Your task to perform on an android device: Open ESPN.com Image 0: 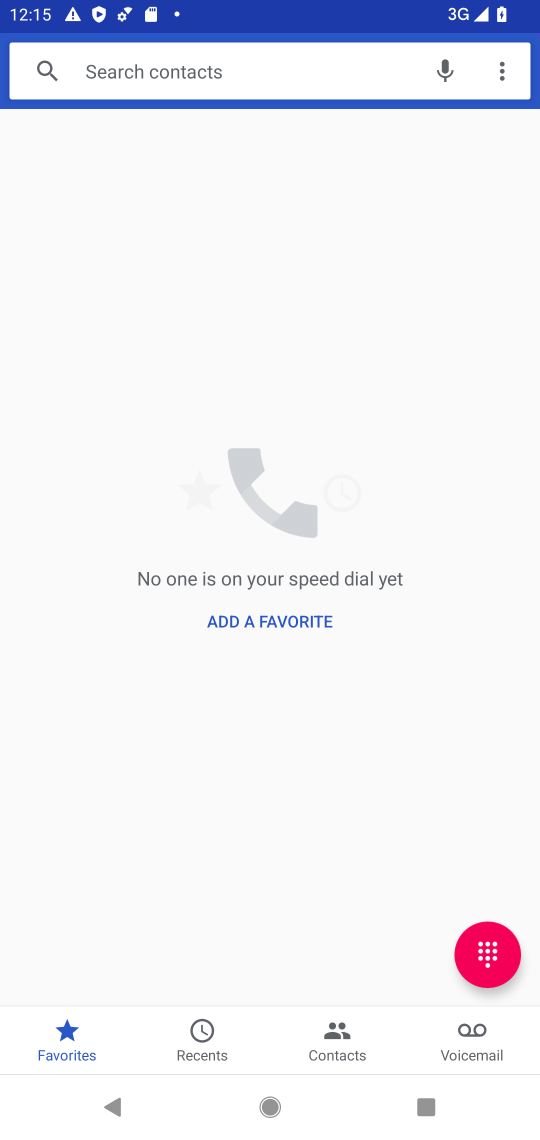
Step 0: drag from (345, 987) to (306, 66)
Your task to perform on an android device: Open ESPN.com Image 1: 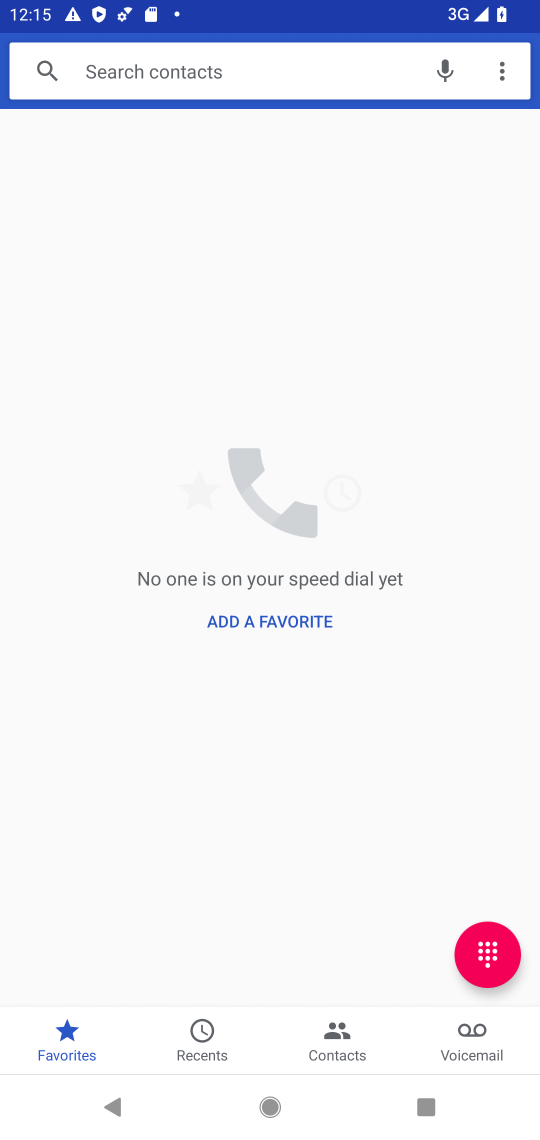
Step 1: press home button
Your task to perform on an android device: Open ESPN.com Image 2: 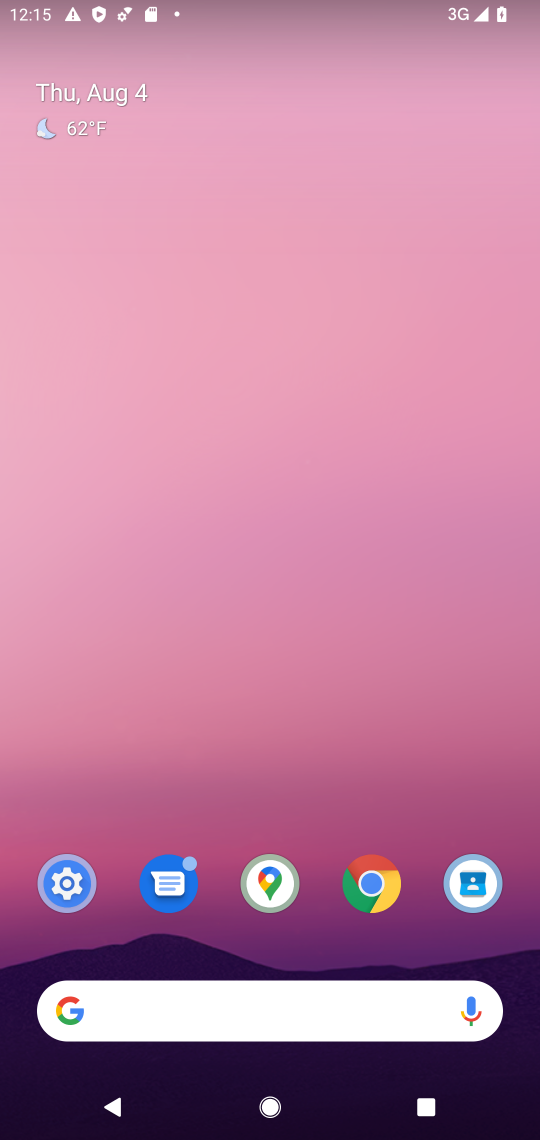
Step 2: drag from (324, 943) to (310, 476)
Your task to perform on an android device: Open ESPN.com Image 3: 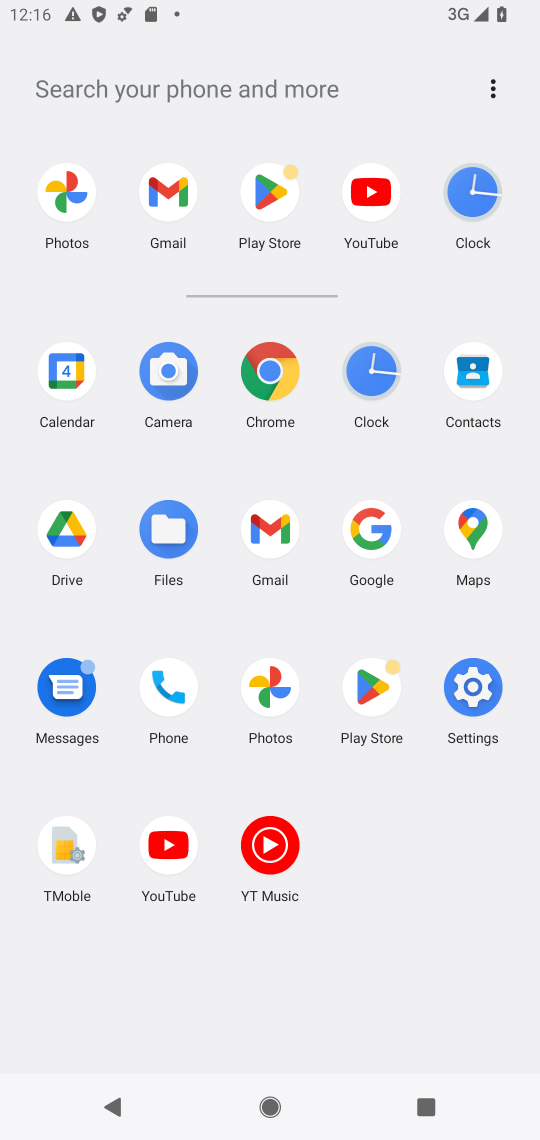
Step 3: click (281, 363)
Your task to perform on an android device: Open ESPN.com Image 4: 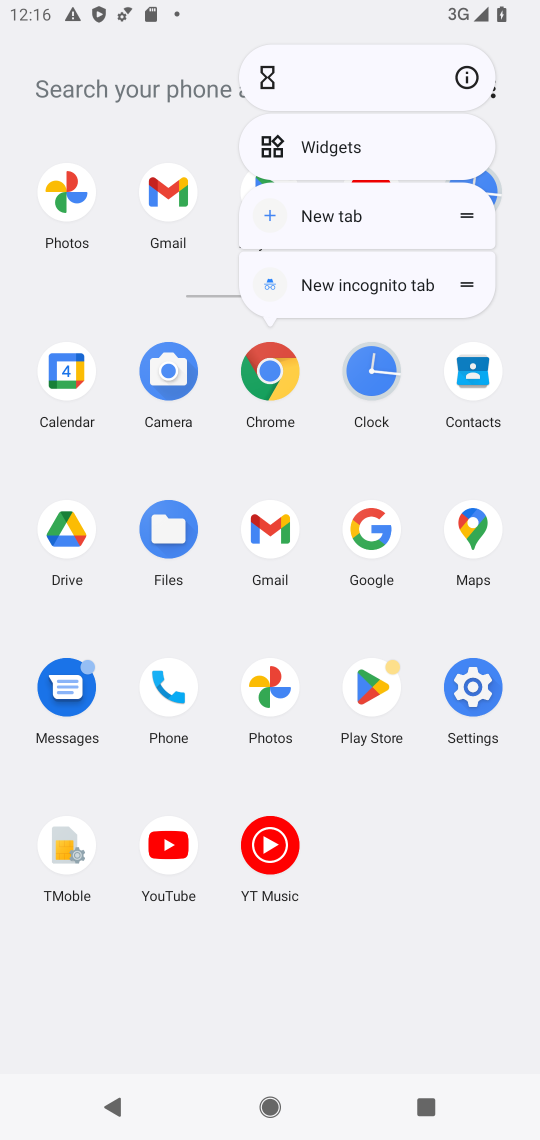
Step 4: click (463, 69)
Your task to perform on an android device: Open ESPN.com Image 5: 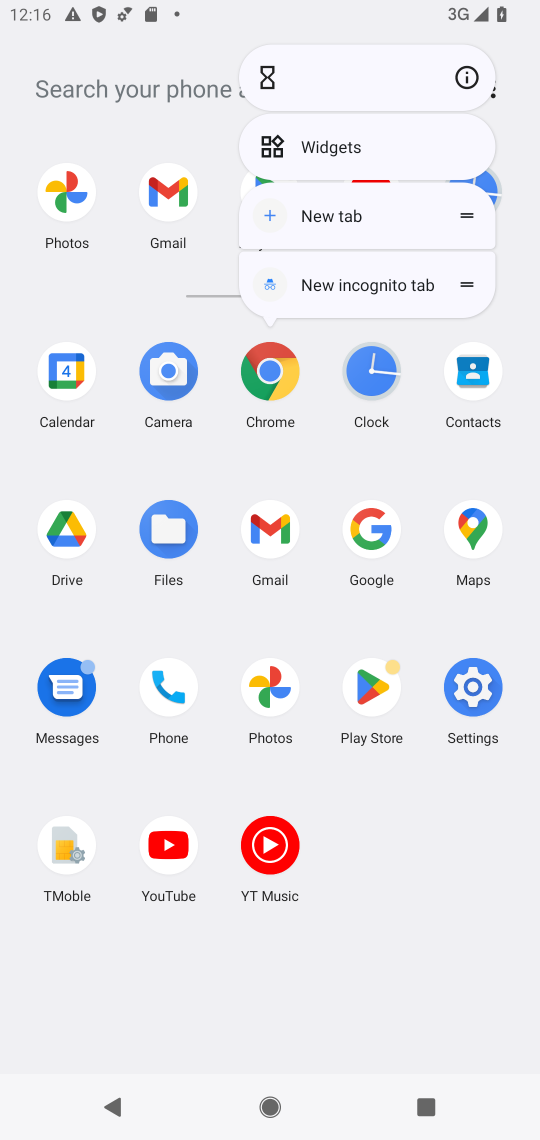
Step 5: click (452, 74)
Your task to perform on an android device: Open ESPN.com Image 6: 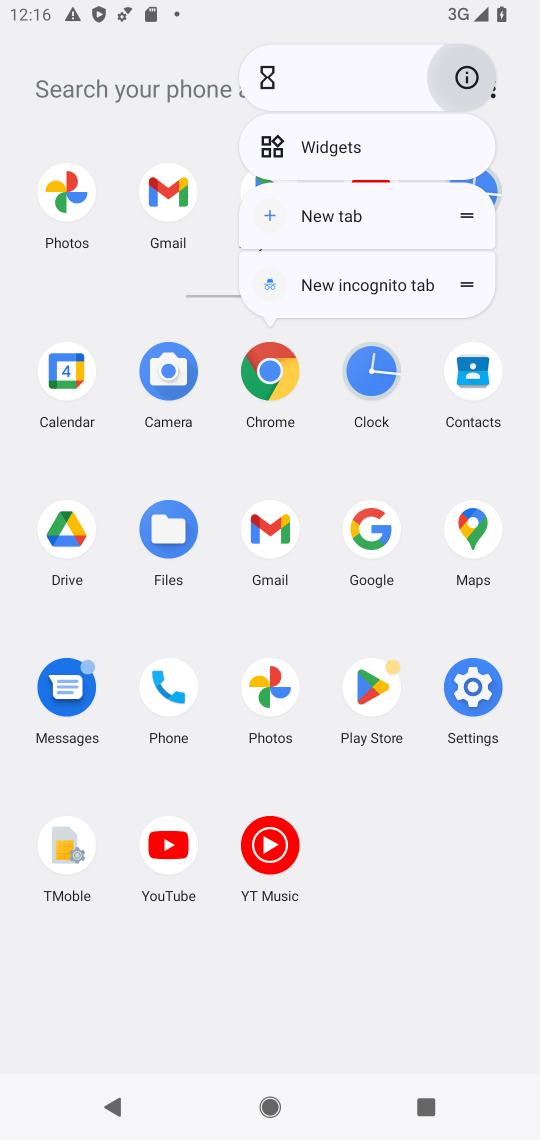
Step 6: click (456, 74)
Your task to perform on an android device: Open ESPN.com Image 7: 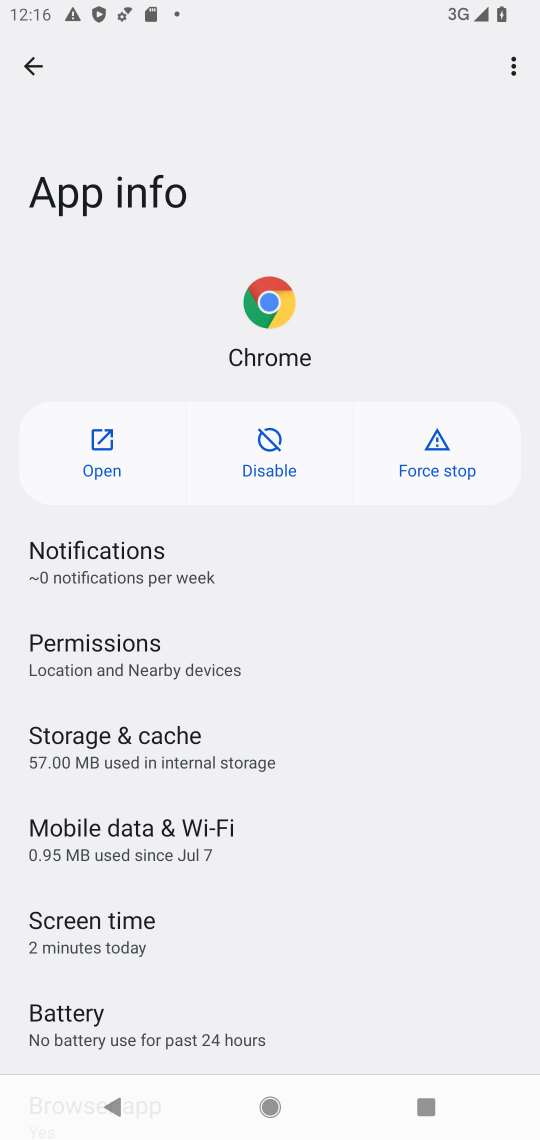
Step 7: click (102, 455)
Your task to perform on an android device: Open ESPN.com Image 8: 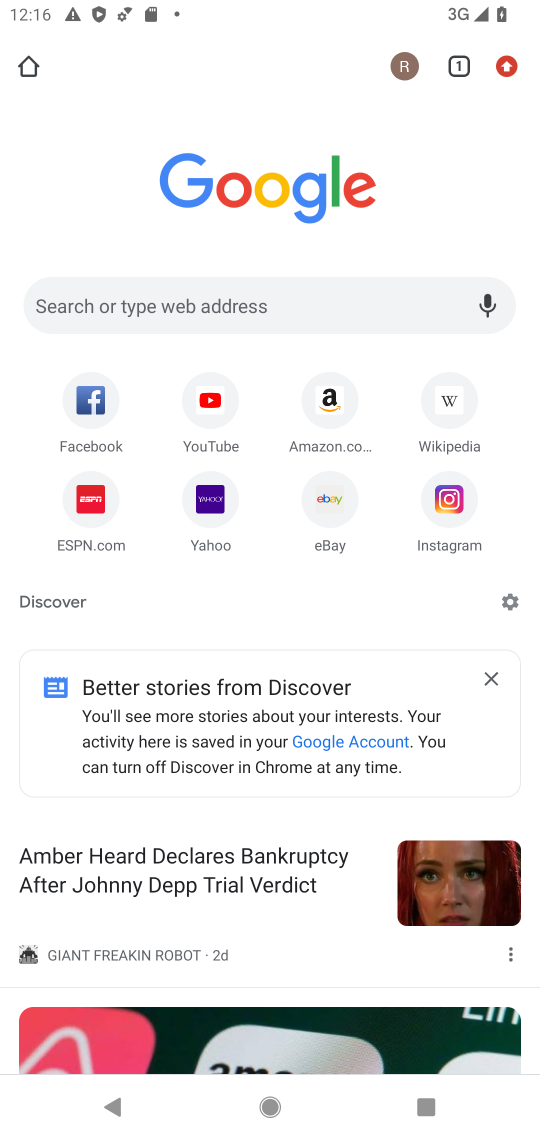
Step 8: drag from (306, 793) to (496, 264)
Your task to perform on an android device: Open ESPN.com Image 9: 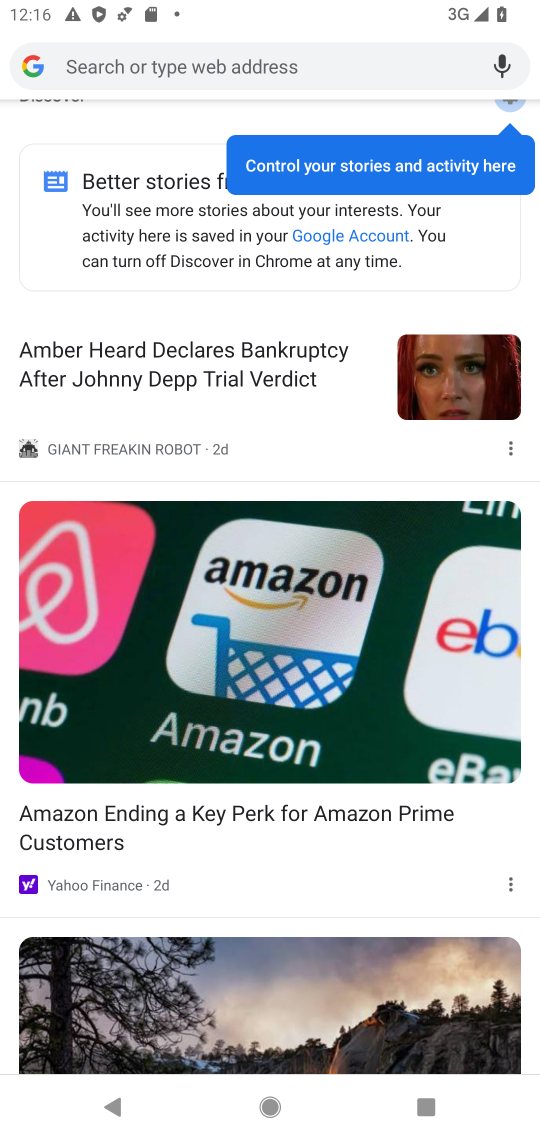
Step 9: drag from (204, 285) to (329, 657)
Your task to perform on an android device: Open ESPN.com Image 10: 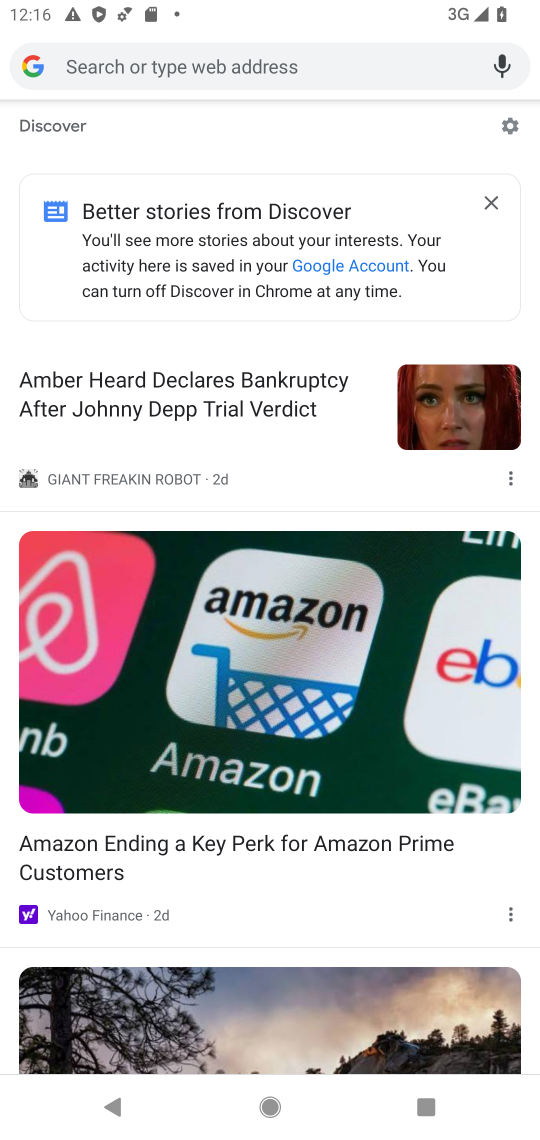
Step 10: drag from (239, 194) to (407, 997)
Your task to perform on an android device: Open ESPN.com Image 11: 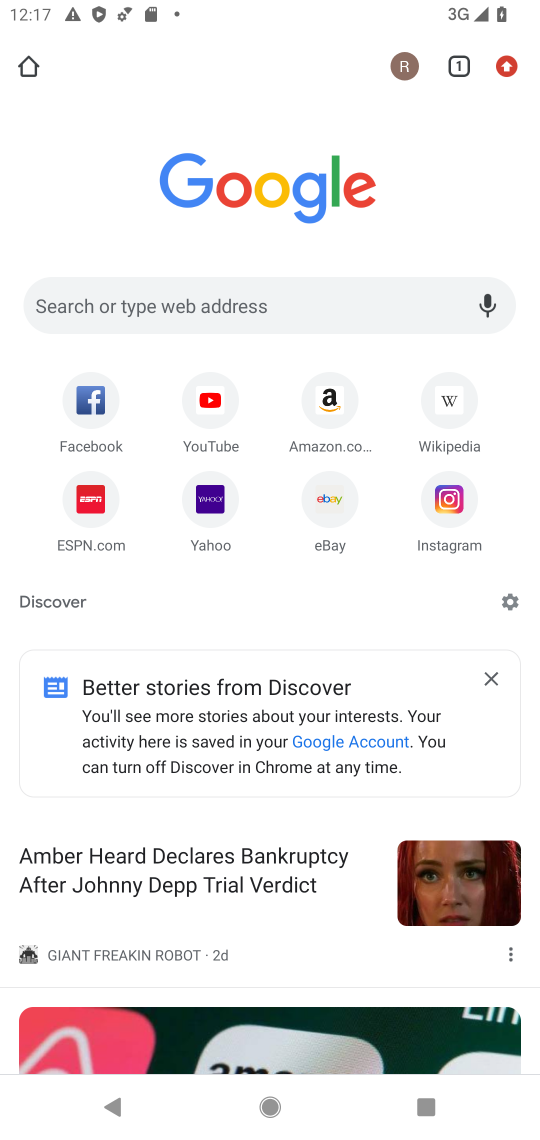
Step 11: click (288, 300)
Your task to perform on an android device: Open ESPN.com Image 12: 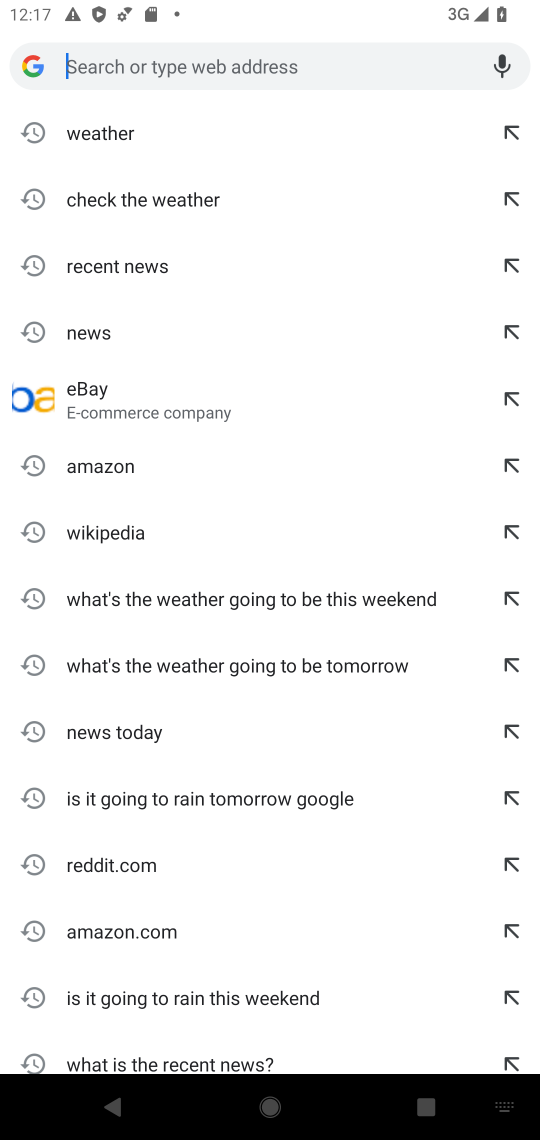
Step 12: type "ESPN.com"
Your task to perform on an android device: Open ESPN.com Image 13: 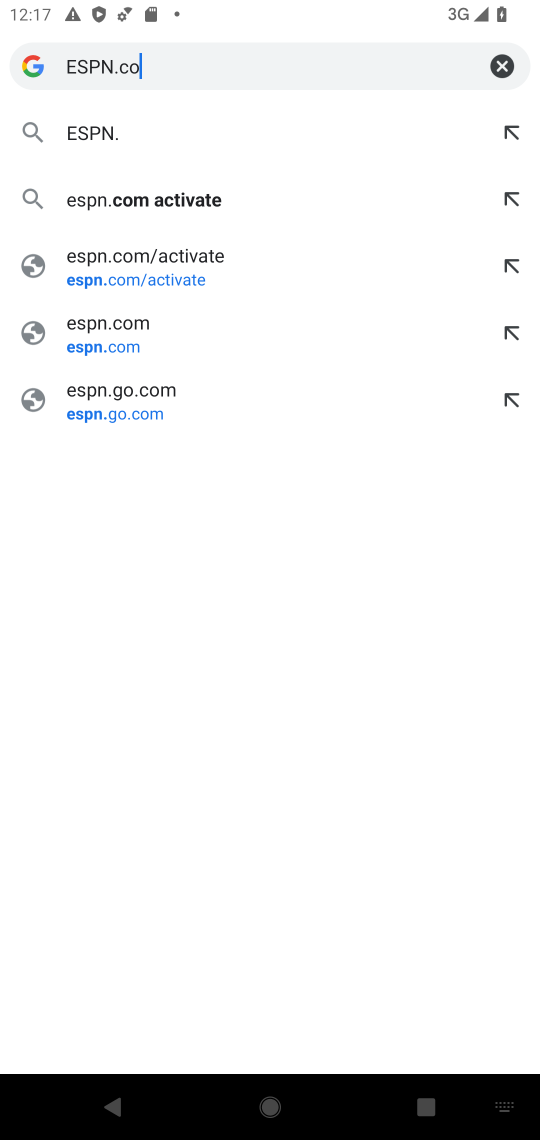
Step 13: type ""
Your task to perform on an android device: Open ESPN.com Image 14: 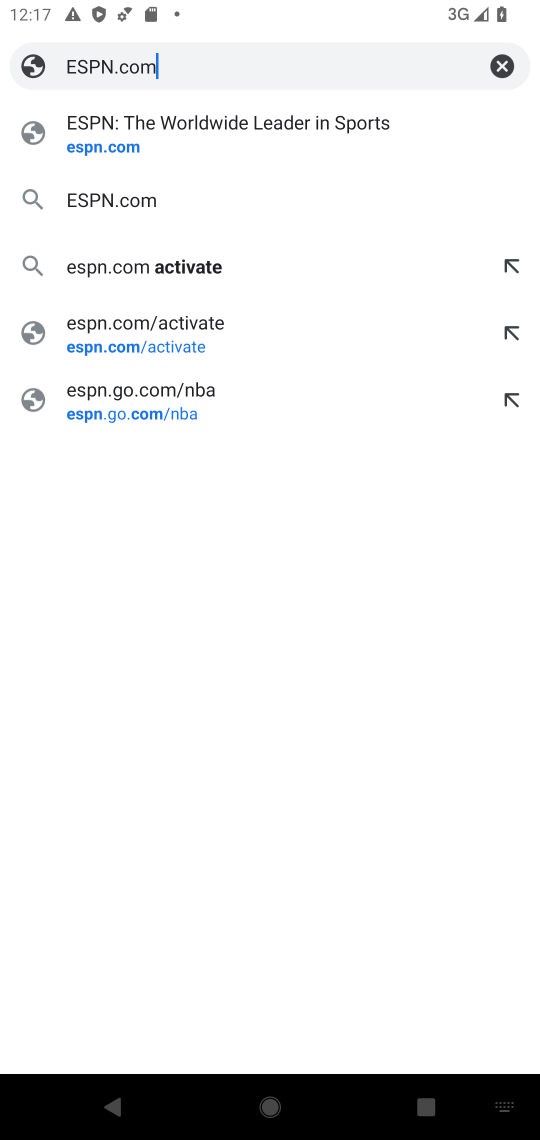
Step 14: click (151, 126)
Your task to perform on an android device: Open ESPN.com Image 15: 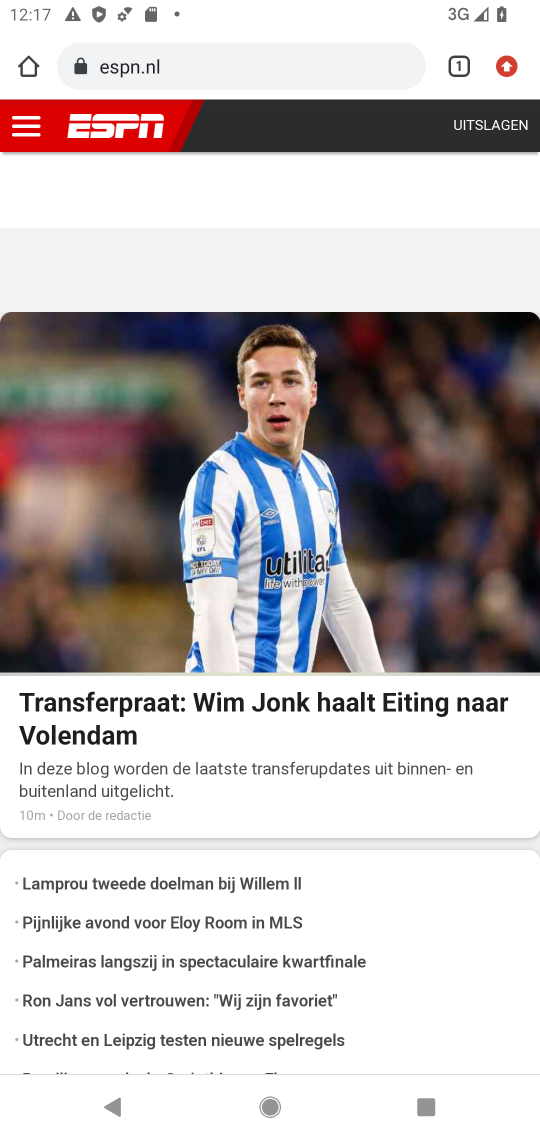
Step 15: task complete